Your task to perform on an android device: turn on translation in the chrome app Image 0: 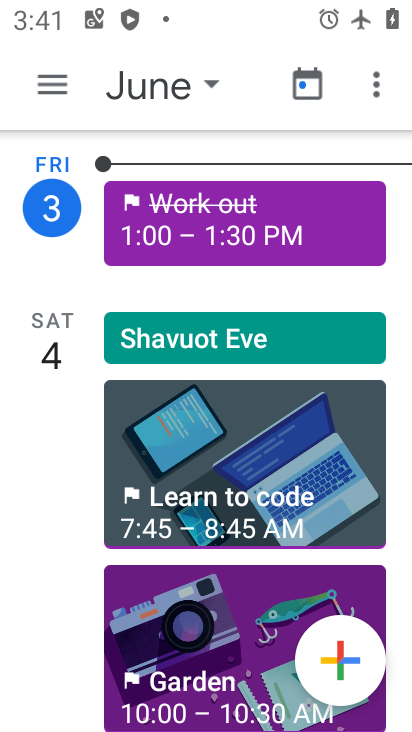
Step 0: press home button
Your task to perform on an android device: turn on translation in the chrome app Image 1: 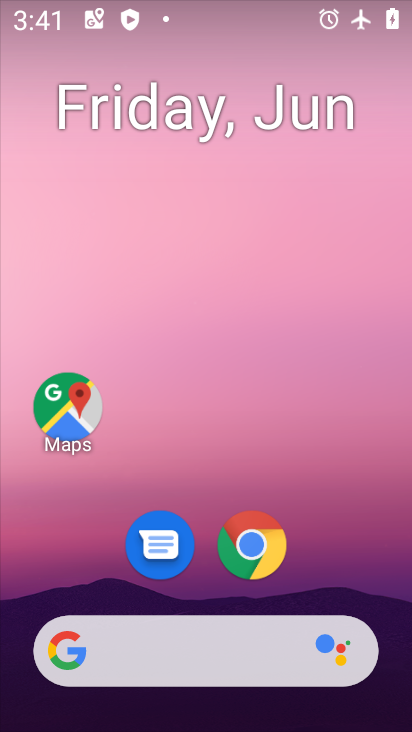
Step 1: click (248, 547)
Your task to perform on an android device: turn on translation in the chrome app Image 2: 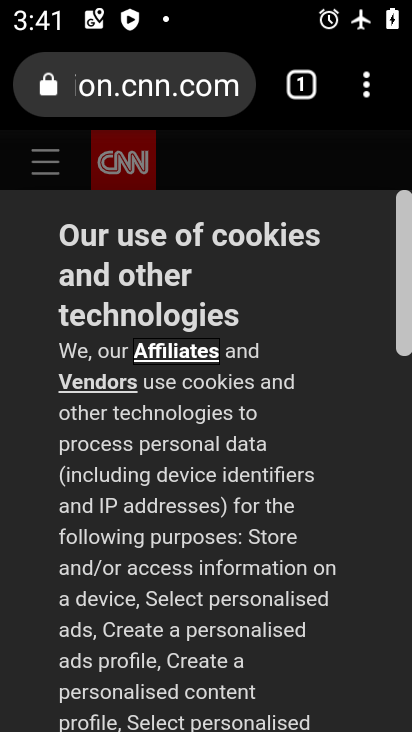
Step 2: click (364, 89)
Your task to perform on an android device: turn on translation in the chrome app Image 3: 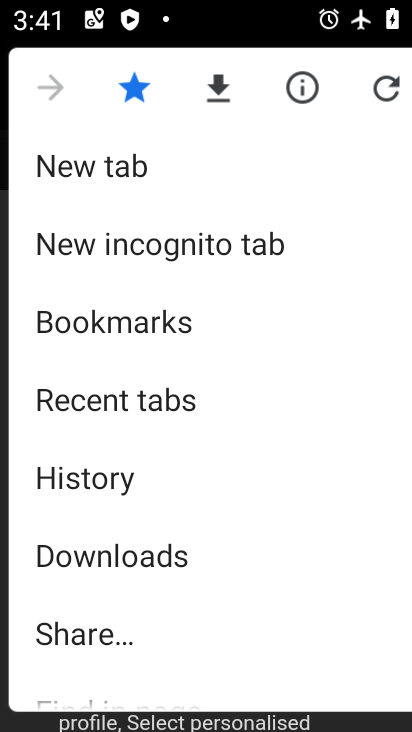
Step 3: drag from (164, 600) to (169, 85)
Your task to perform on an android device: turn on translation in the chrome app Image 4: 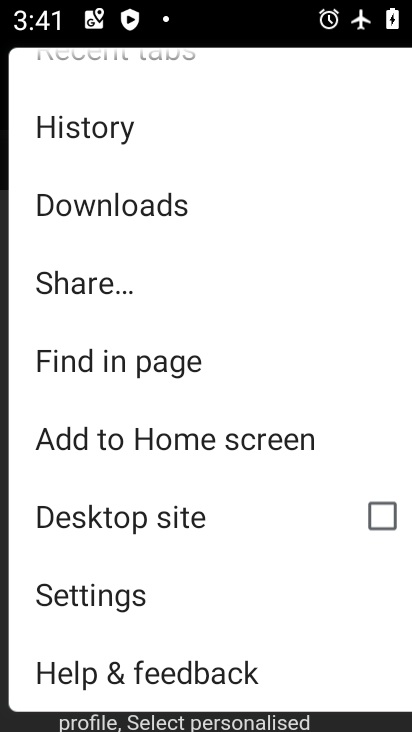
Step 4: click (139, 599)
Your task to perform on an android device: turn on translation in the chrome app Image 5: 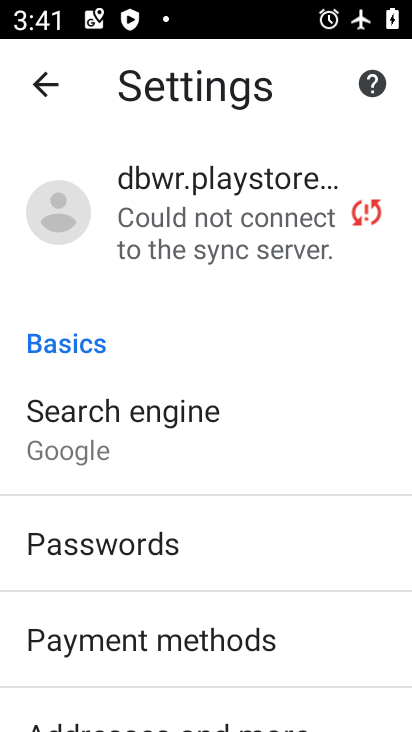
Step 5: drag from (213, 652) to (187, 214)
Your task to perform on an android device: turn on translation in the chrome app Image 6: 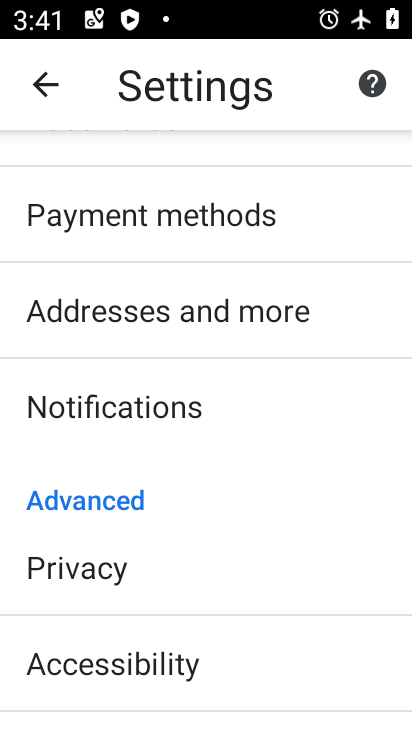
Step 6: drag from (220, 659) to (233, 313)
Your task to perform on an android device: turn on translation in the chrome app Image 7: 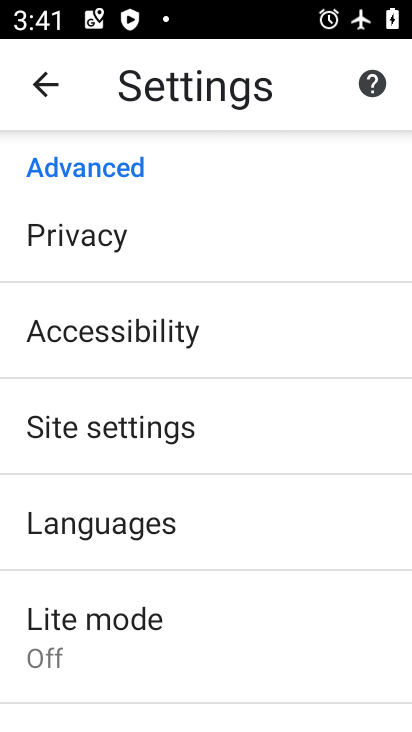
Step 7: click (168, 535)
Your task to perform on an android device: turn on translation in the chrome app Image 8: 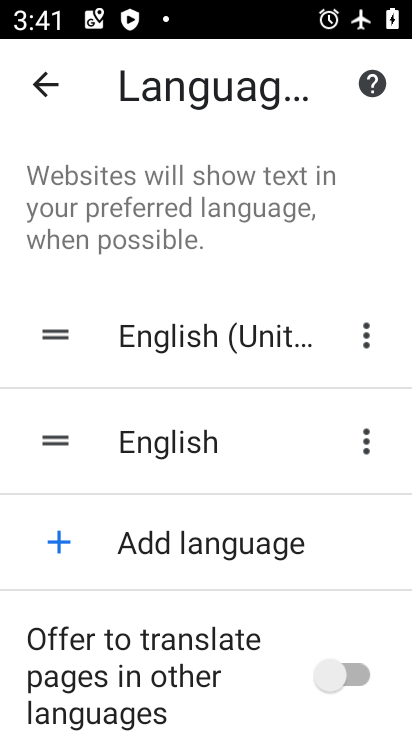
Step 8: drag from (170, 664) to (184, 382)
Your task to perform on an android device: turn on translation in the chrome app Image 9: 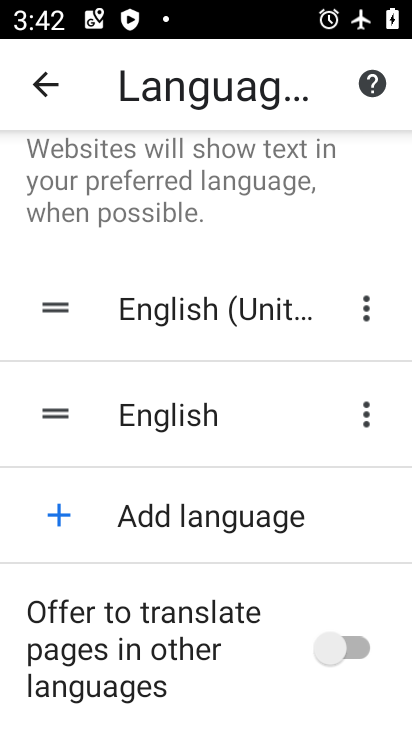
Step 9: click (345, 660)
Your task to perform on an android device: turn on translation in the chrome app Image 10: 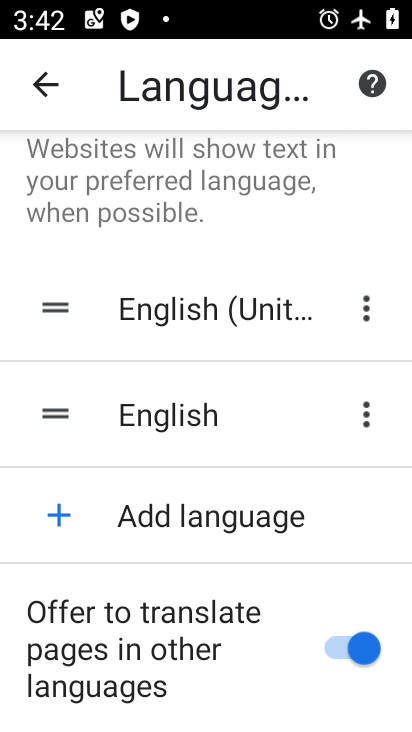
Step 10: task complete